Your task to perform on an android device: Go to privacy settings Image 0: 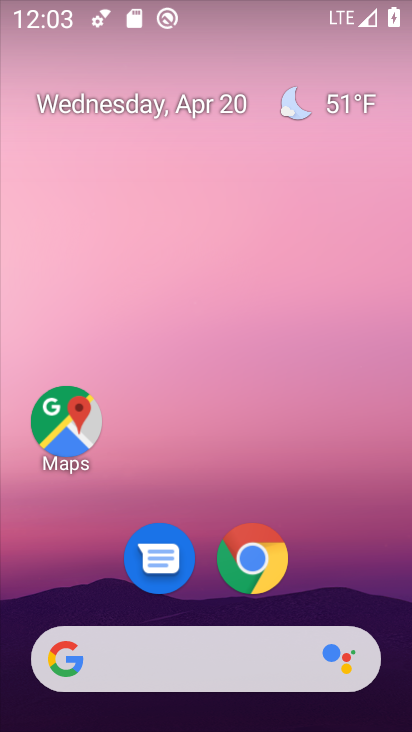
Step 0: drag from (388, 627) to (337, 184)
Your task to perform on an android device: Go to privacy settings Image 1: 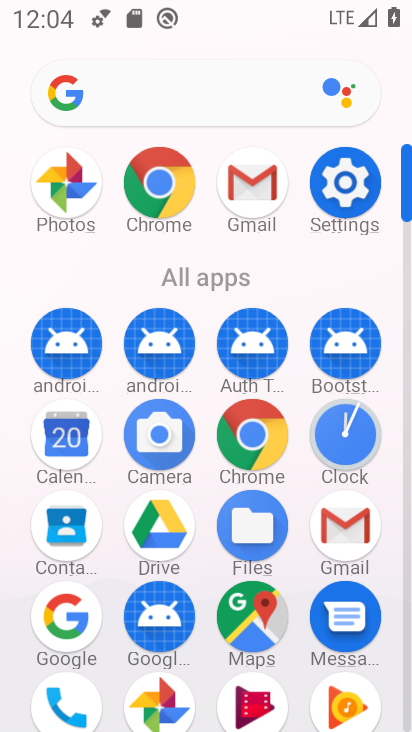
Step 1: click (407, 691)
Your task to perform on an android device: Go to privacy settings Image 2: 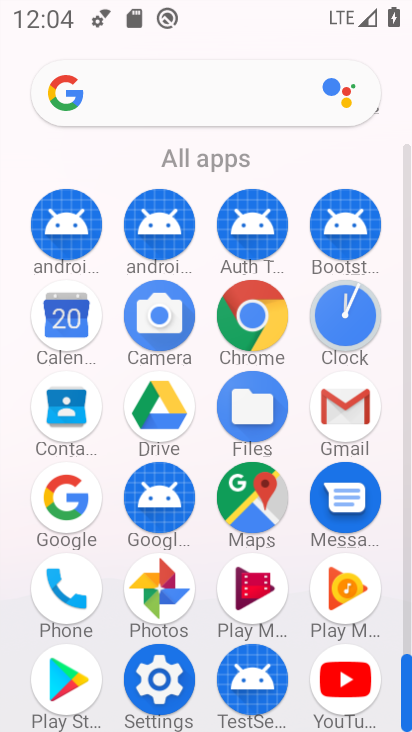
Step 2: click (159, 678)
Your task to perform on an android device: Go to privacy settings Image 3: 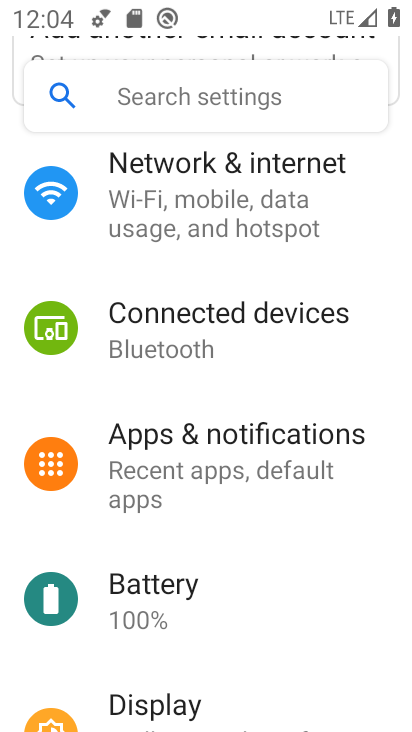
Step 3: drag from (369, 587) to (339, 341)
Your task to perform on an android device: Go to privacy settings Image 4: 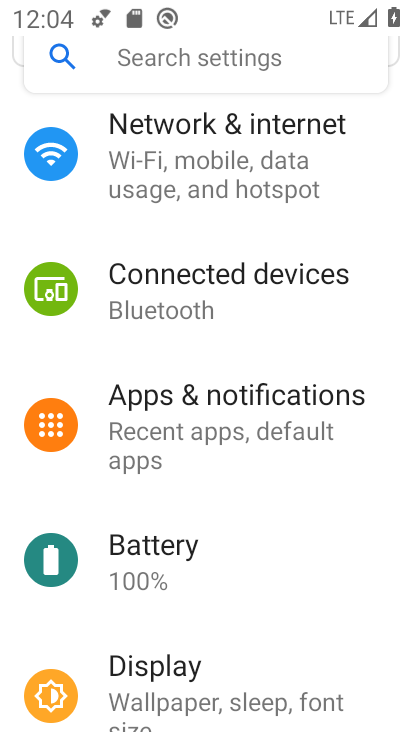
Step 4: drag from (337, 575) to (344, 319)
Your task to perform on an android device: Go to privacy settings Image 5: 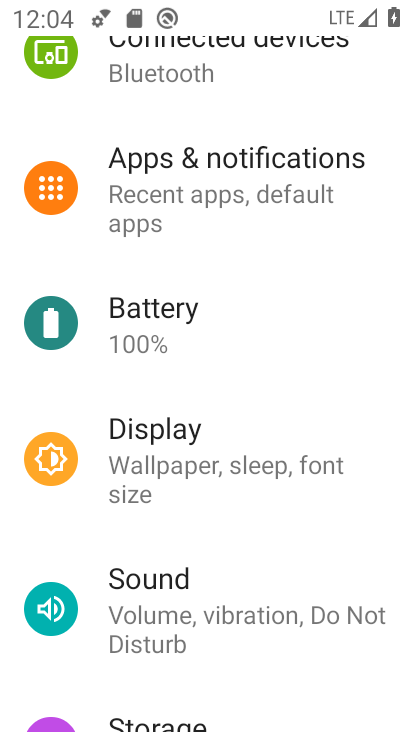
Step 5: drag from (360, 570) to (367, 338)
Your task to perform on an android device: Go to privacy settings Image 6: 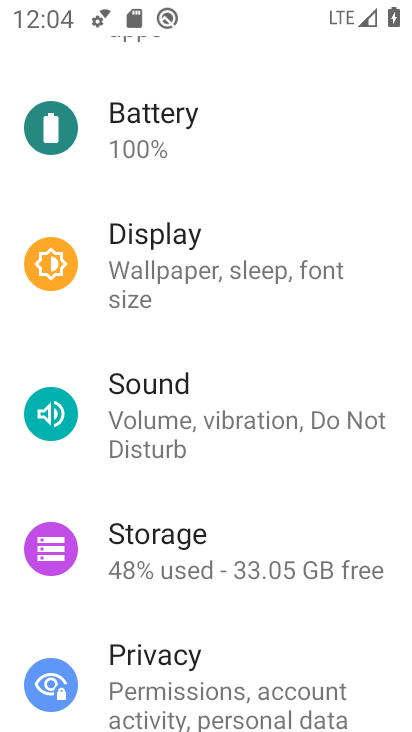
Step 6: drag from (335, 586) to (356, 314)
Your task to perform on an android device: Go to privacy settings Image 7: 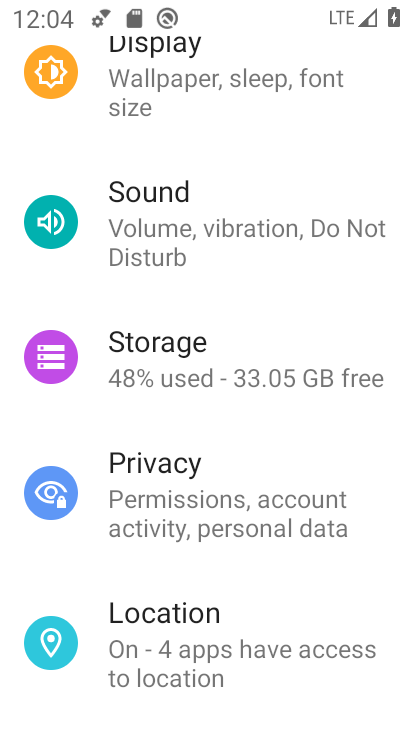
Step 7: click (144, 498)
Your task to perform on an android device: Go to privacy settings Image 8: 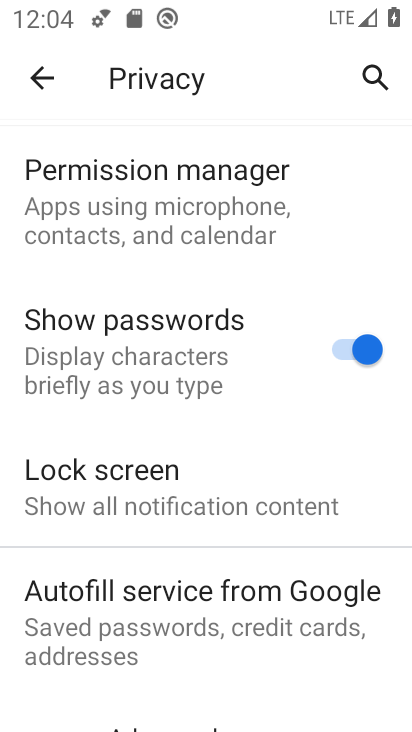
Step 8: drag from (303, 602) to (307, 359)
Your task to perform on an android device: Go to privacy settings Image 9: 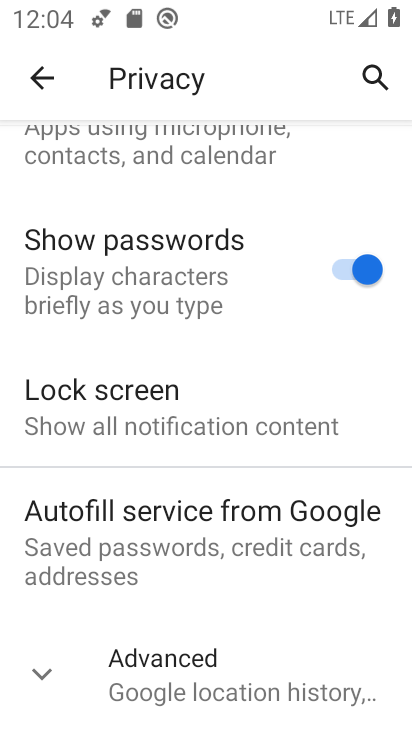
Step 9: click (40, 674)
Your task to perform on an android device: Go to privacy settings Image 10: 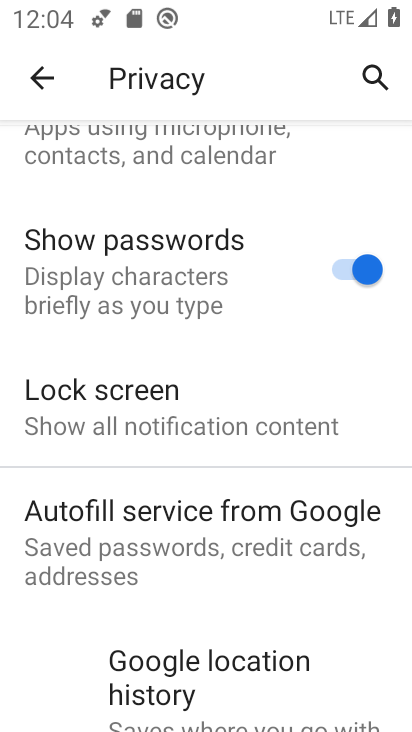
Step 10: task complete